Your task to perform on an android device: See recent photos Image 0: 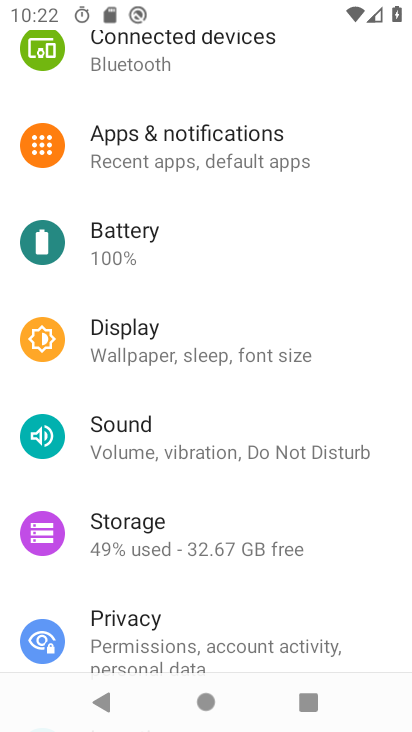
Step 0: press home button
Your task to perform on an android device: See recent photos Image 1: 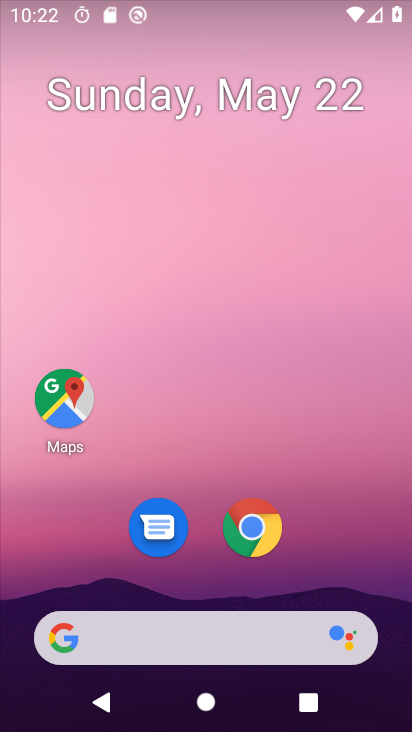
Step 1: drag from (227, 647) to (260, 159)
Your task to perform on an android device: See recent photos Image 2: 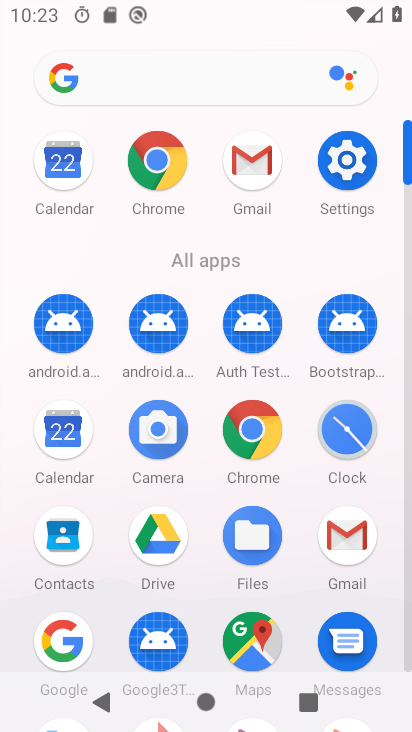
Step 2: drag from (206, 548) to (240, 154)
Your task to perform on an android device: See recent photos Image 3: 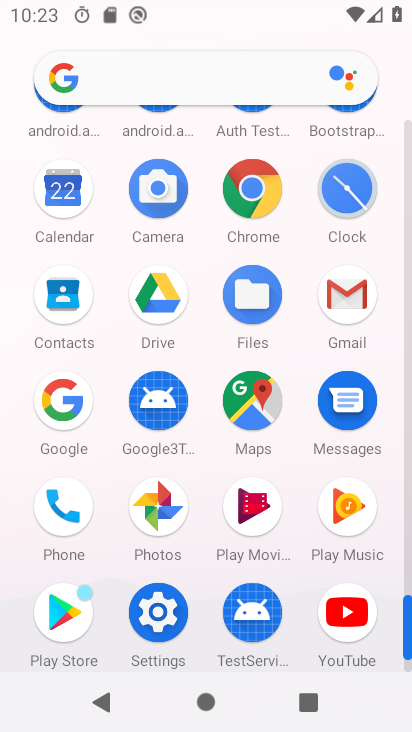
Step 3: click (172, 513)
Your task to perform on an android device: See recent photos Image 4: 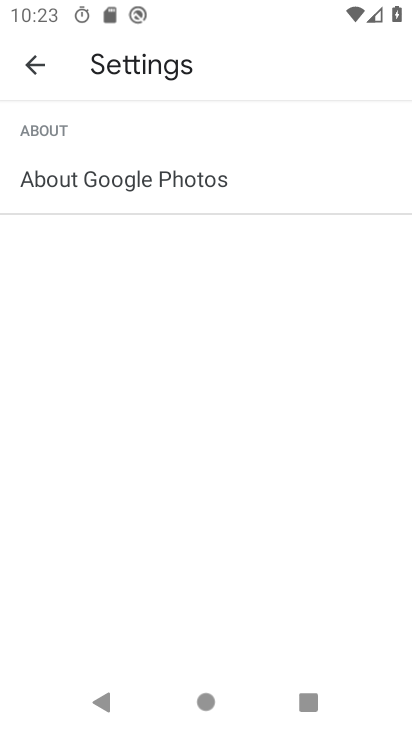
Step 4: click (32, 65)
Your task to perform on an android device: See recent photos Image 5: 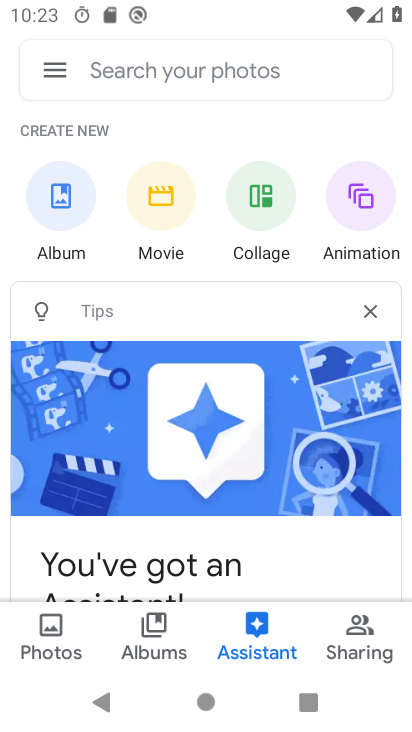
Step 5: click (53, 626)
Your task to perform on an android device: See recent photos Image 6: 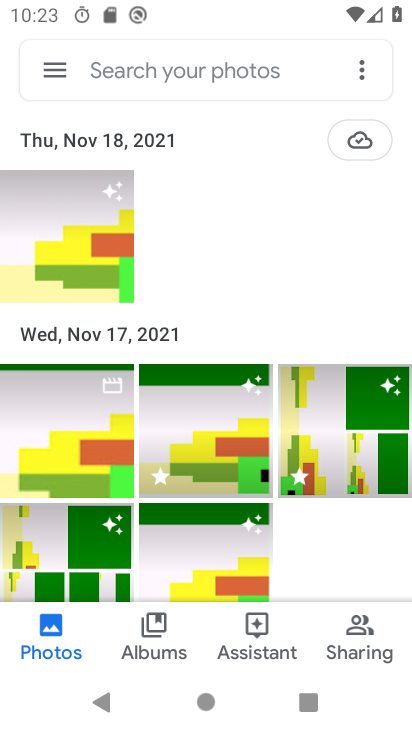
Step 6: task complete